Your task to perform on an android device: open app "HBO Max: Stream TV & Movies" (install if not already installed) Image 0: 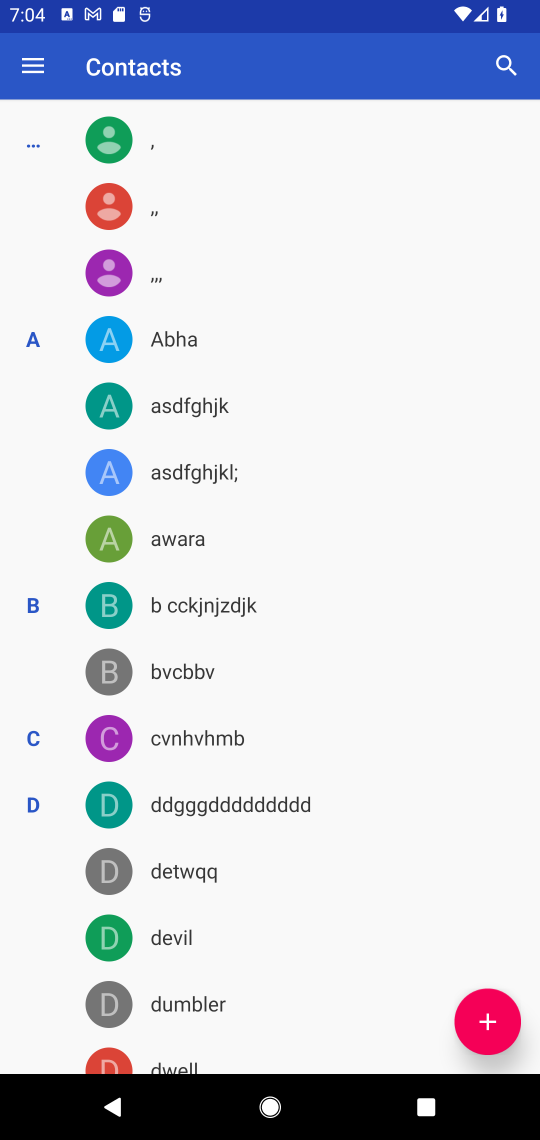
Step 0: press back button
Your task to perform on an android device: open app "HBO Max: Stream TV & Movies" (install if not already installed) Image 1: 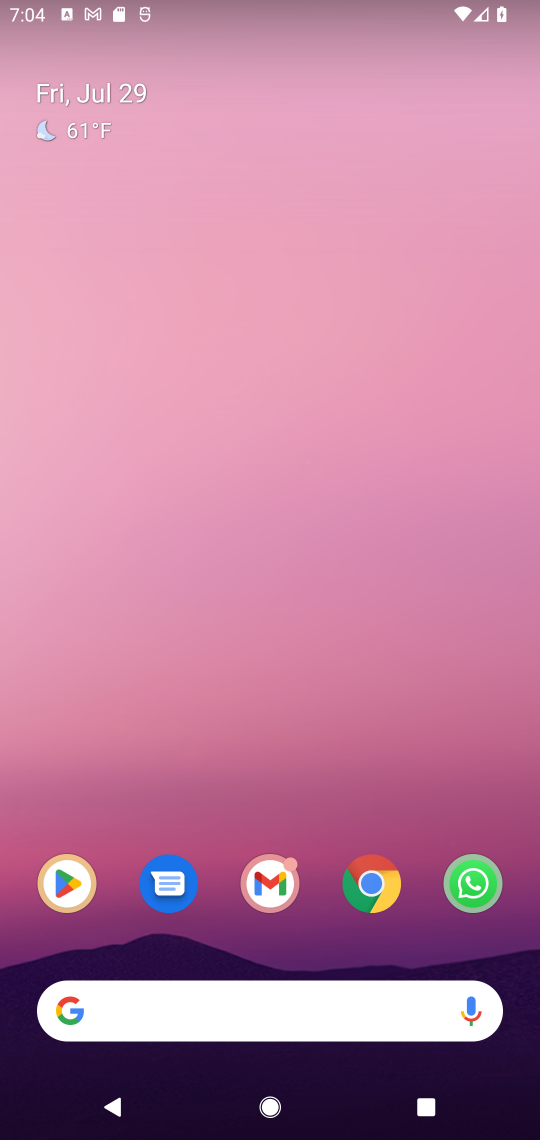
Step 1: click (59, 875)
Your task to perform on an android device: open app "HBO Max: Stream TV & Movies" (install if not already installed) Image 2: 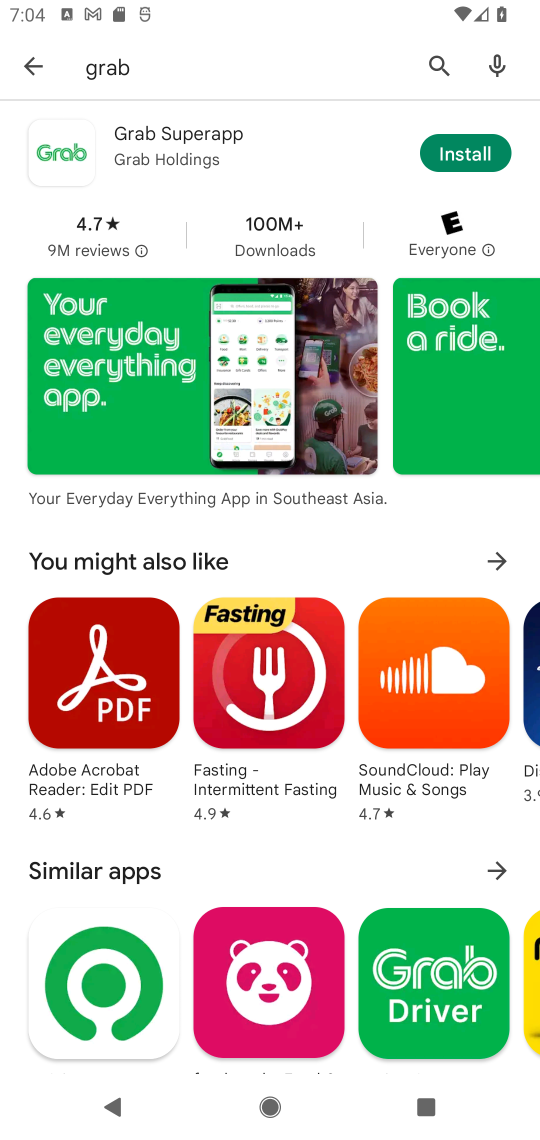
Step 2: click (441, 49)
Your task to perform on an android device: open app "HBO Max: Stream TV & Movies" (install if not already installed) Image 3: 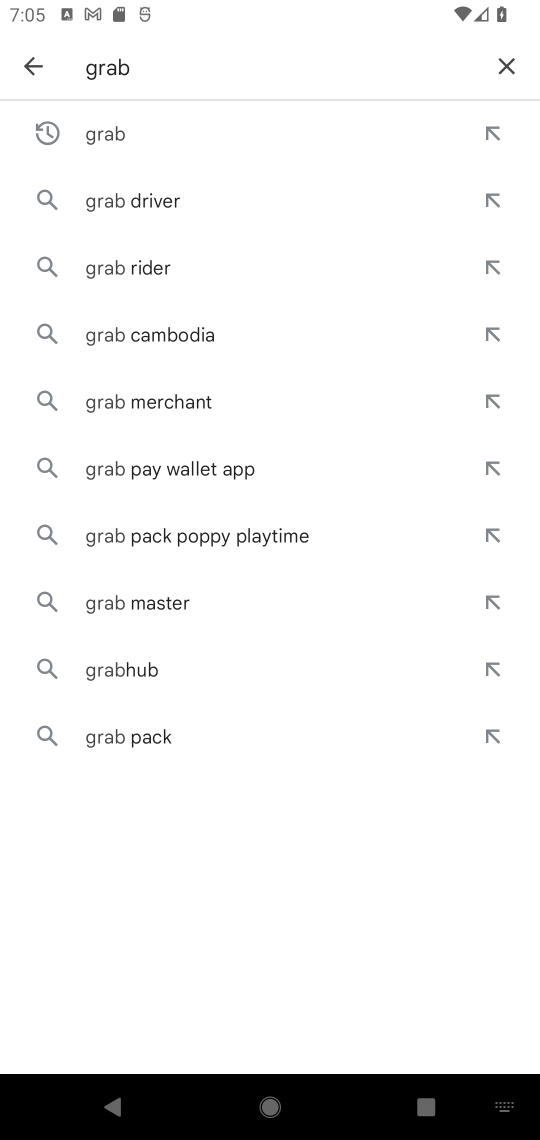
Step 3: click (520, 51)
Your task to perform on an android device: open app "HBO Max: Stream TV & Movies" (install if not already installed) Image 4: 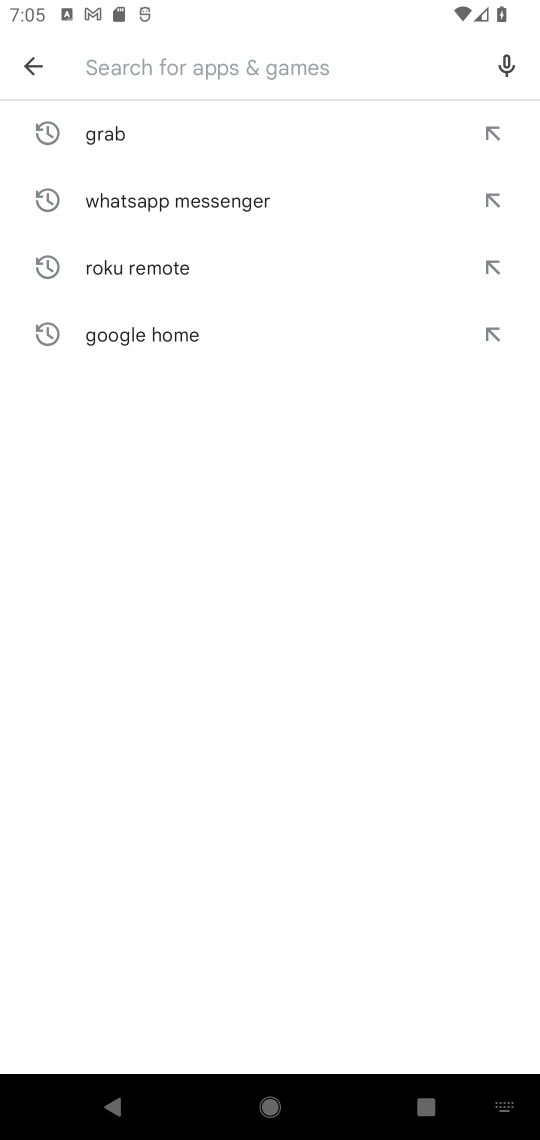
Step 4: click (196, 73)
Your task to perform on an android device: open app "HBO Max: Stream TV & Movies" (install if not already installed) Image 5: 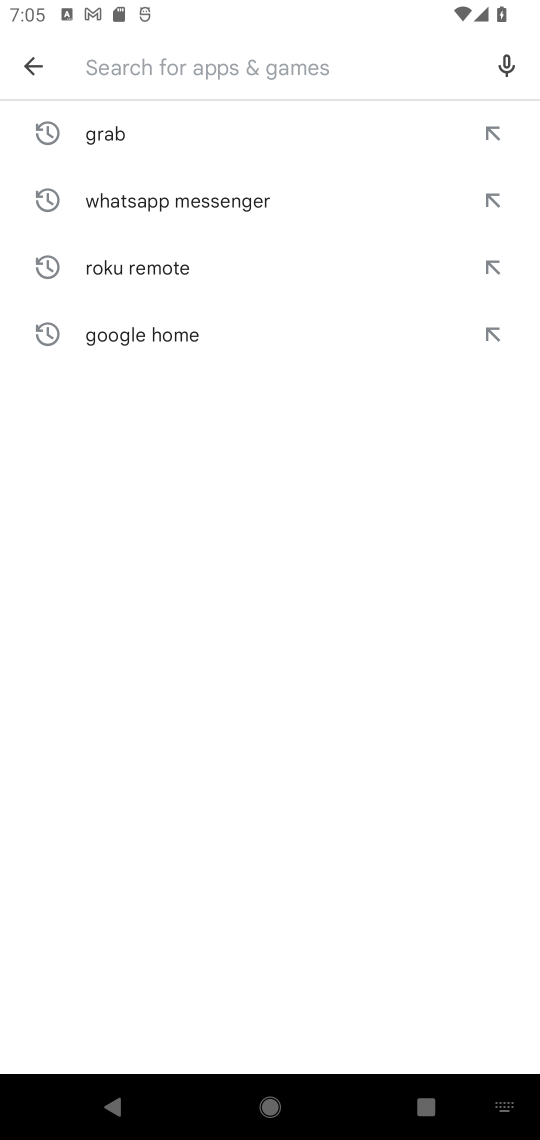
Step 5: type "hbo"
Your task to perform on an android device: open app "HBO Max: Stream TV & Movies" (install if not already installed) Image 6: 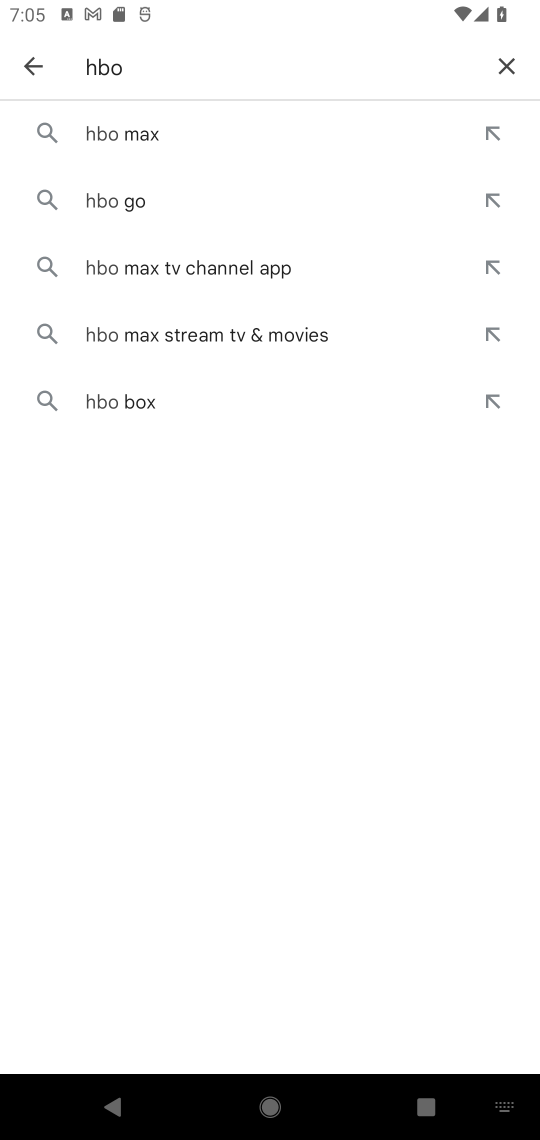
Step 6: click (155, 135)
Your task to perform on an android device: open app "HBO Max: Stream TV & Movies" (install if not already installed) Image 7: 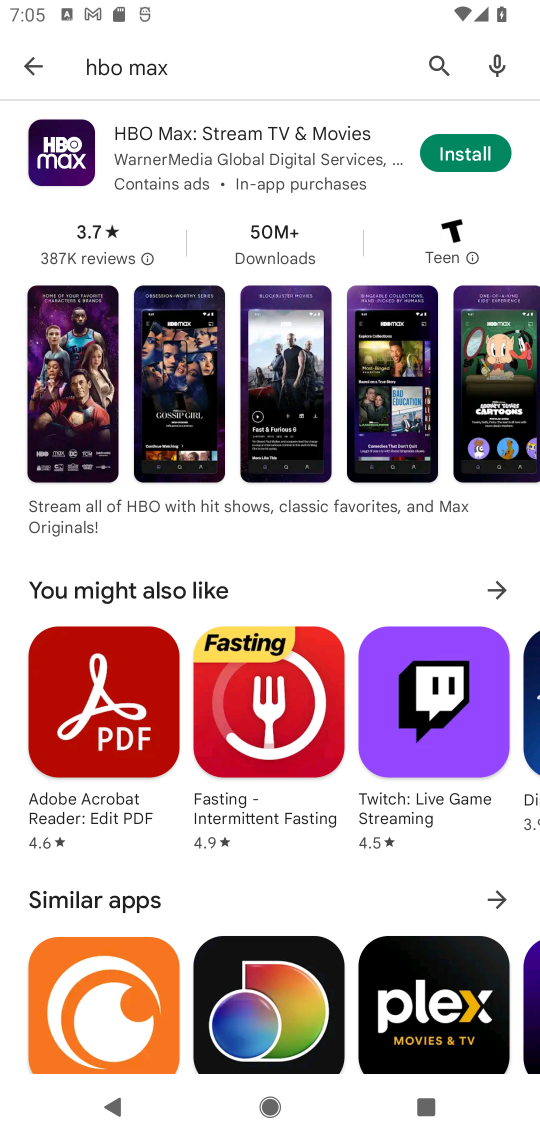
Step 7: click (481, 161)
Your task to perform on an android device: open app "HBO Max: Stream TV & Movies" (install if not already installed) Image 8: 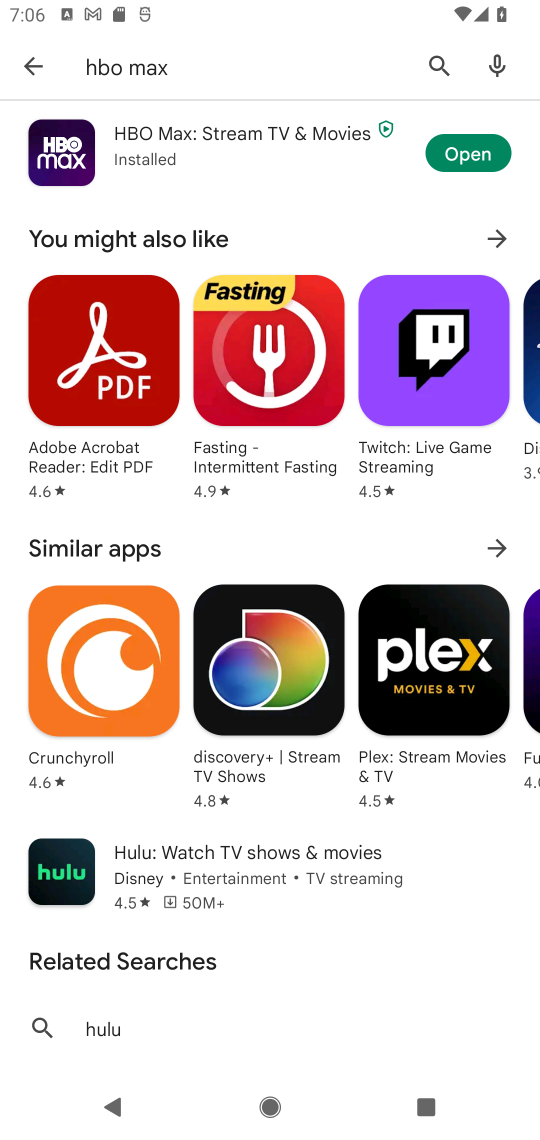
Step 8: click (470, 155)
Your task to perform on an android device: open app "HBO Max: Stream TV & Movies" (install if not already installed) Image 9: 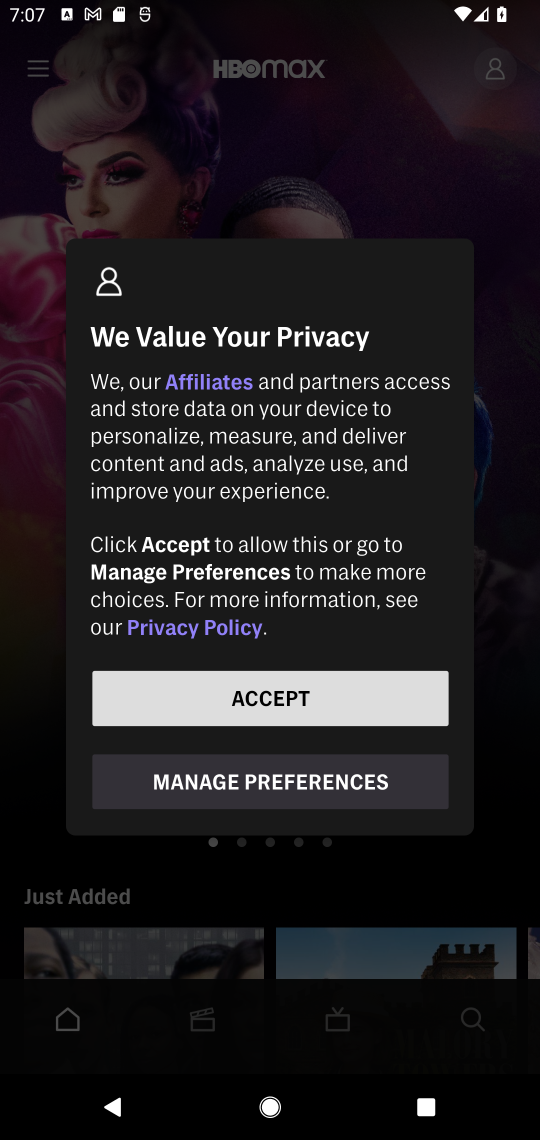
Step 9: task complete